Your task to perform on an android device: see creations saved in the google photos Image 0: 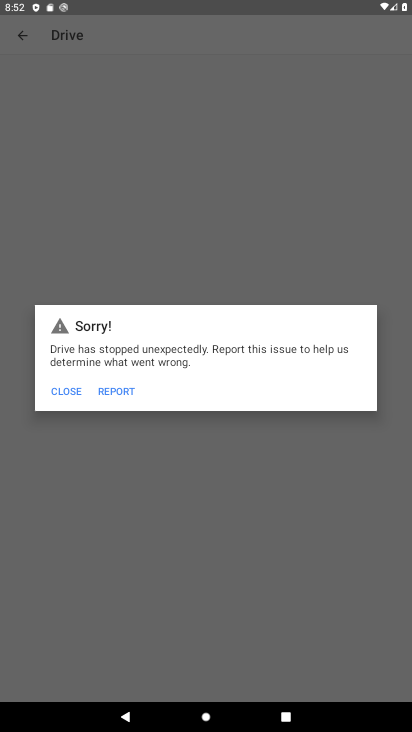
Step 0: press home button
Your task to perform on an android device: see creations saved in the google photos Image 1: 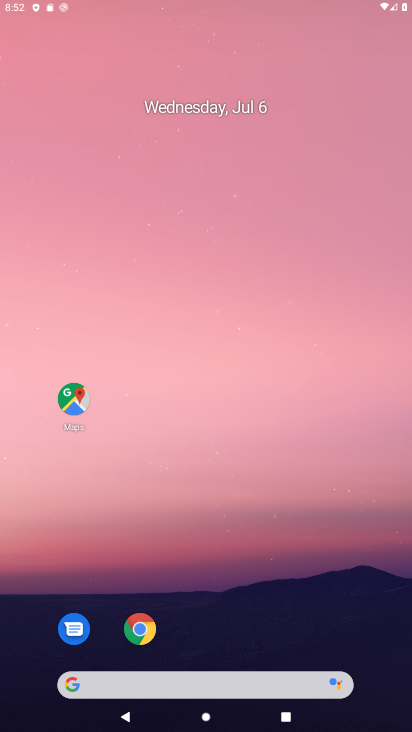
Step 1: drag from (241, 620) to (268, 107)
Your task to perform on an android device: see creations saved in the google photos Image 2: 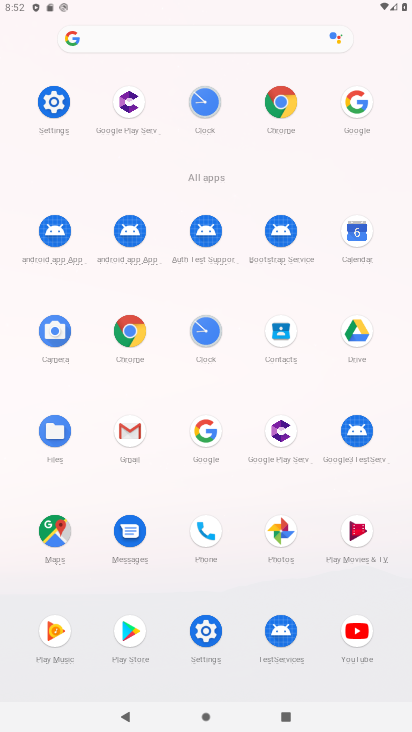
Step 2: click (274, 532)
Your task to perform on an android device: see creations saved in the google photos Image 3: 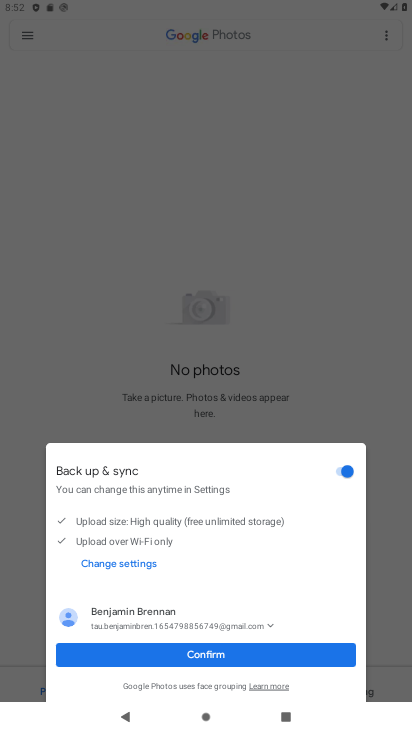
Step 3: click (202, 653)
Your task to perform on an android device: see creations saved in the google photos Image 4: 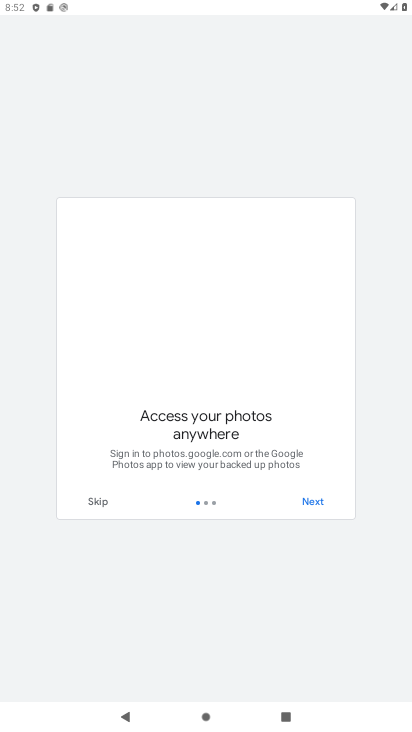
Step 4: click (311, 495)
Your task to perform on an android device: see creations saved in the google photos Image 5: 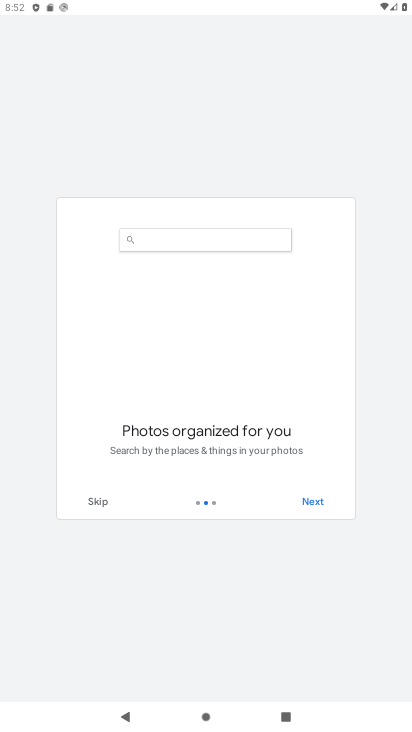
Step 5: click (311, 495)
Your task to perform on an android device: see creations saved in the google photos Image 6: 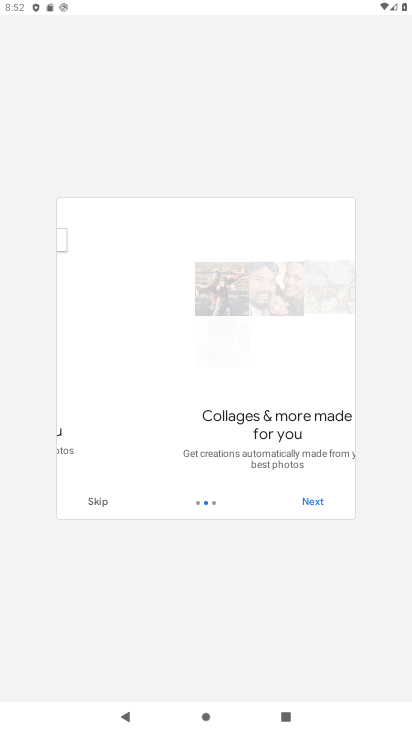
Step 6: click (310, 495)
Your task to perform on an android device: see creations saved in the google photos Image 7: 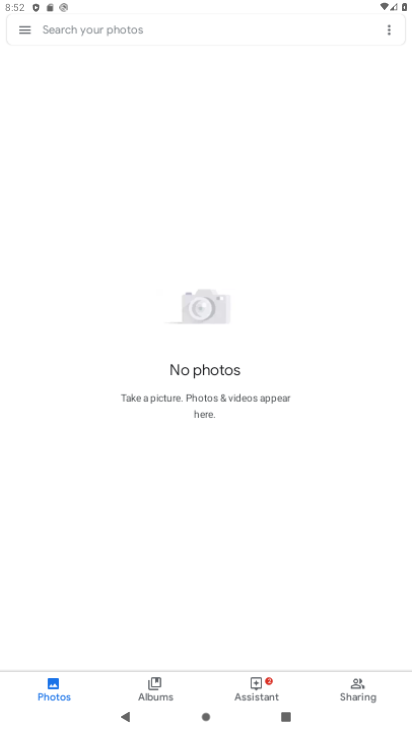
Step 7: click (310, 495)
Your task to perform on an android device: see creations saved in the google photos Image 8: 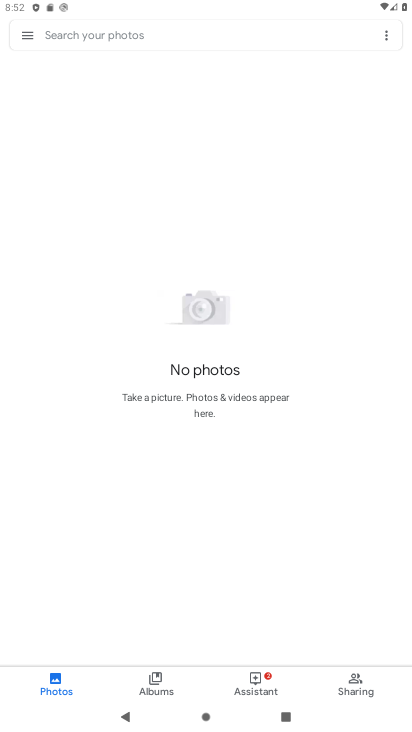
Step 8: click (159, 34)
Your task to perform on an android device: see creations saved in the google photos Image 9: 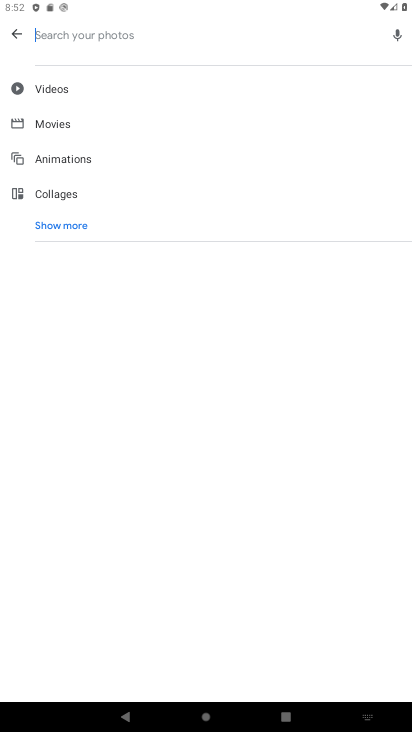
Step 9: click (72, 224)
Your task to perform on an android device: see creations saved in the google photos Image 10: 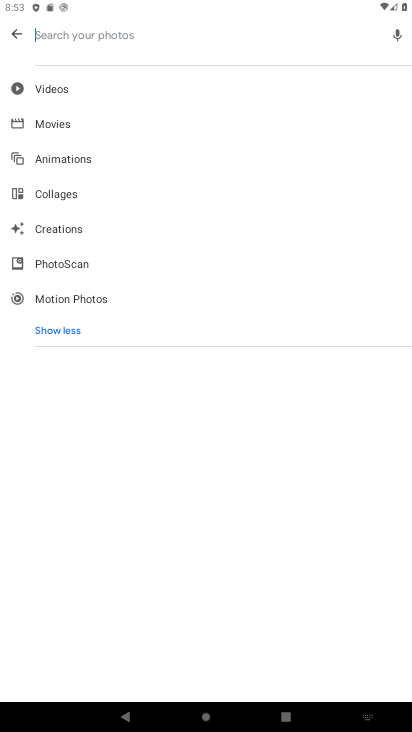
Step 10: click (56, 230)
Your task to perform on an android device: see creations saved in the google photos Image 11: 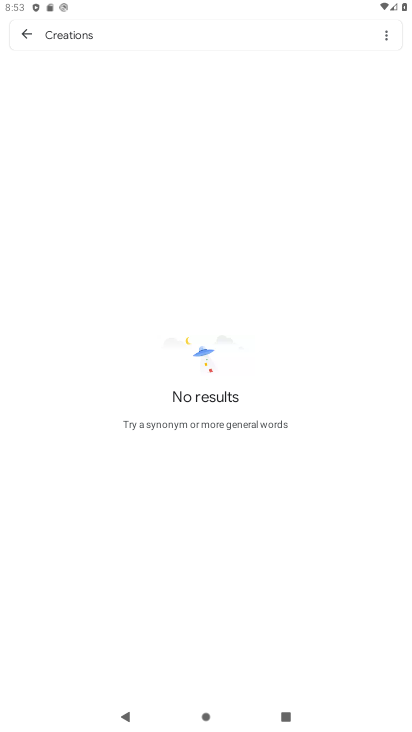
Step 11: task complete